Your task to perform on an android device: Open settings Image 0: 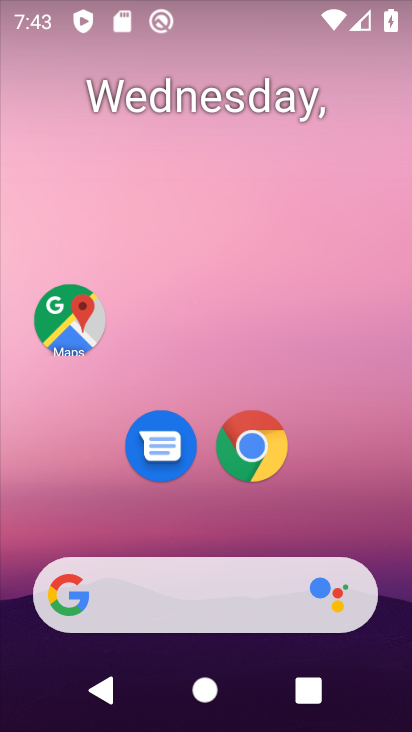
Step 0: drag from (385, 717) to (304, 21)
Your task to perform on an android device: Open settings Image 1: 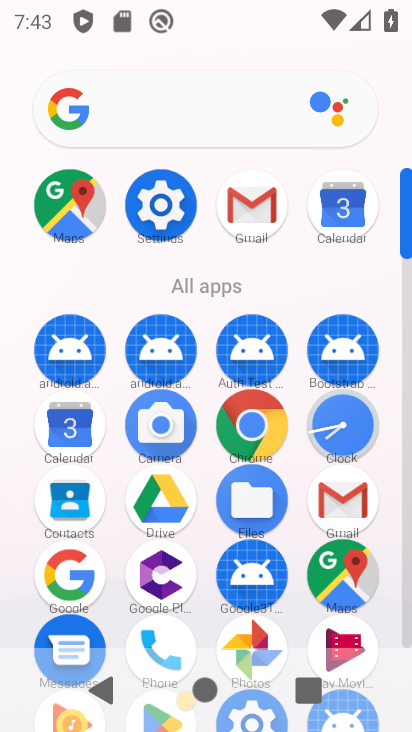
Step 1: click (139, 192)
Your task to perform on an android device: Open settings Image 2: 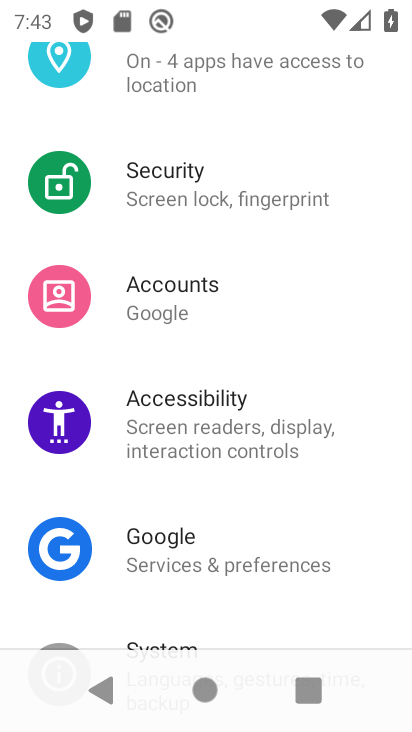
Step 2: task complete